Your task to perform on an android device: Open my contact list Image 0: 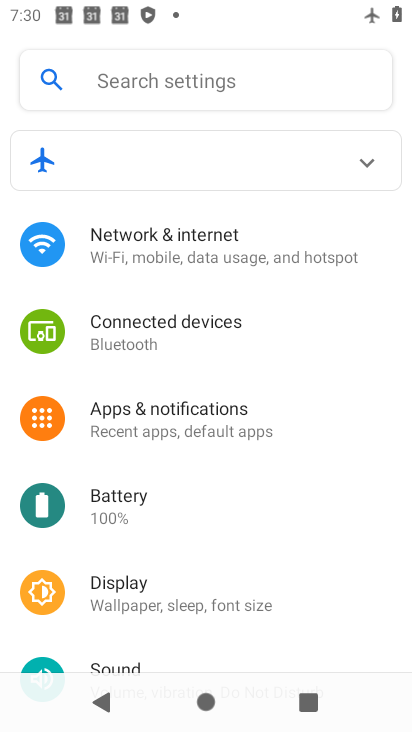
Step 0: press home button
Your task to perform on an android device: Open my contact list Image 1: 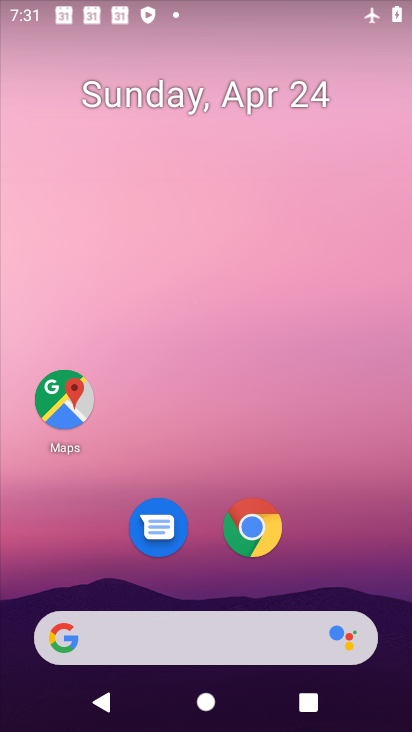
Step 1: drag from (390, 608) to (234, 44)
Your task to perform on an android device: Open my contact list Image 2: 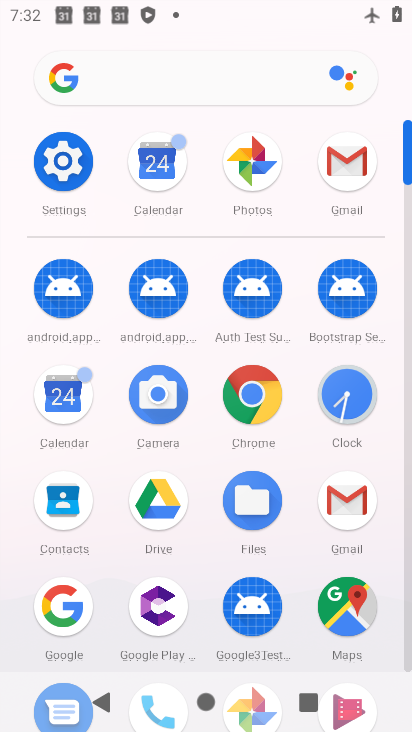
Step 2: click (60, 490)
Your task to perform on an android device: Open my contact list Image 3: 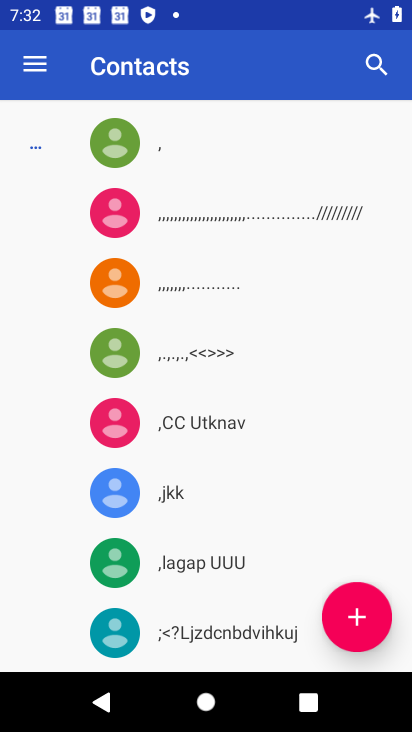
Step 3: task complete